Your task to perform on an android device: Go to Google maps Image 0: 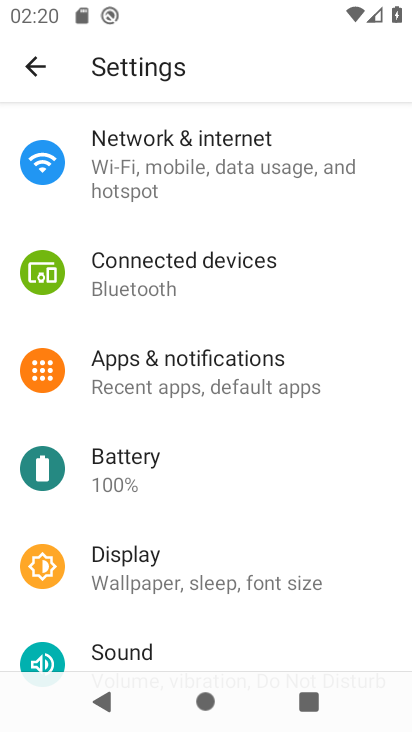
Step 0: press home button
Your task to perform on an android device: Go to Google maps Image 1: 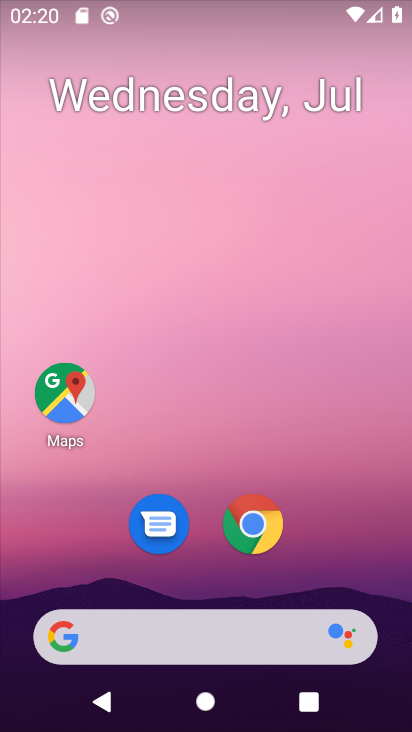
Step 1: click (54, 407)
Your task to perform on an android device: Go to Google maps Image 2: 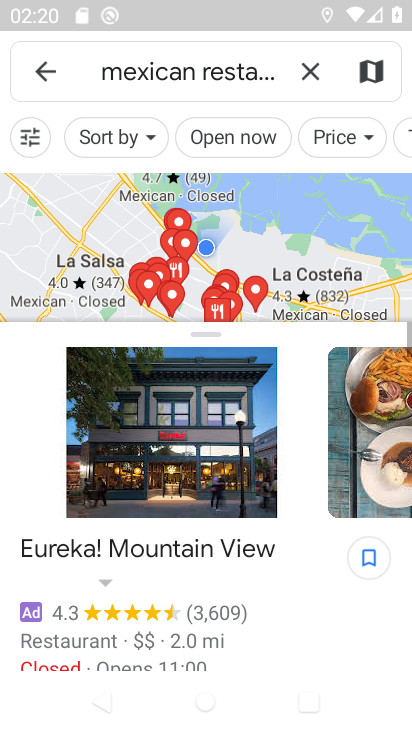
Step 2: click (306, 59)
Your task to perform on an android device: Go to Google maps Image 3: 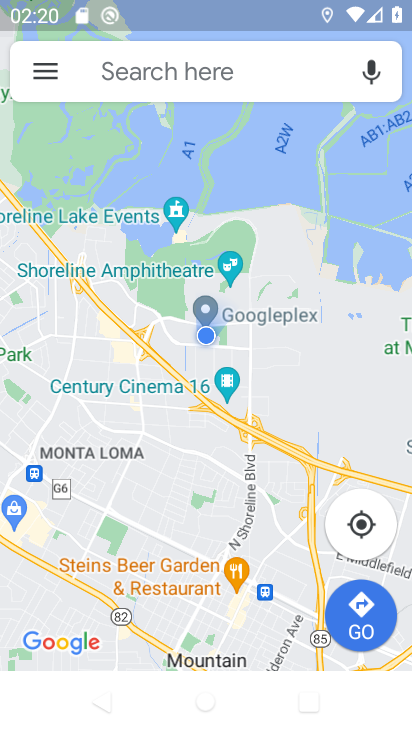
Step 3: task complete